Your task to perform on an android device: Go to Android settings Image 0: 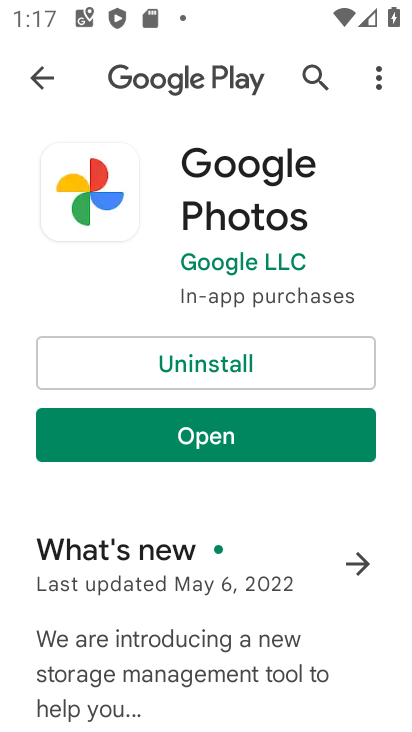
Step 0: press home button
Your task to perform on an android device: Go to Android settings Image 1: 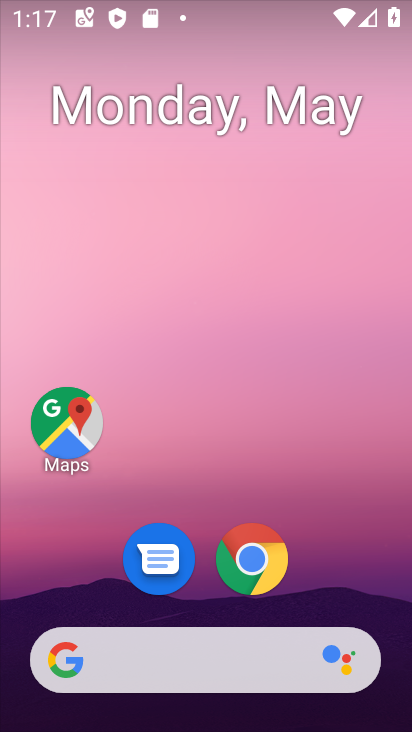
Step 1: drag from (225, 672) to (234, 42)
Your task to perform on an android device: Go to Android settings Image 2: 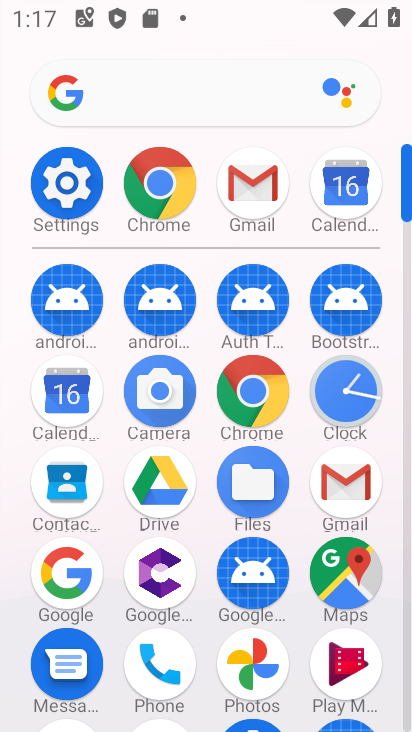
Step 2: click (86, 197)
Your task to perform on an android device: Go to Android settings Image 3: 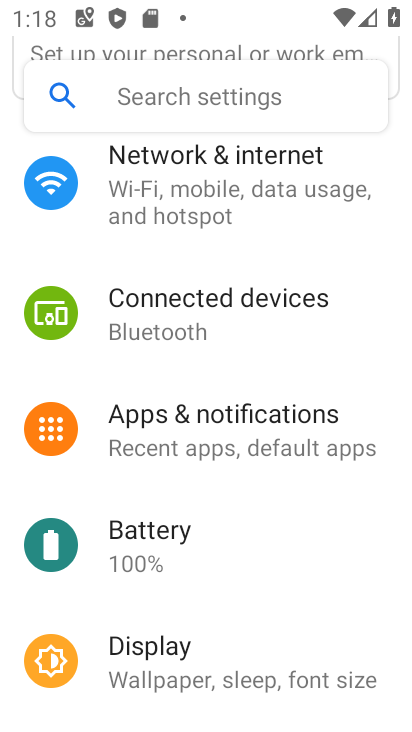
Step 3: task complete